Your task to perform on an android device: Go to notification settings Image 0: 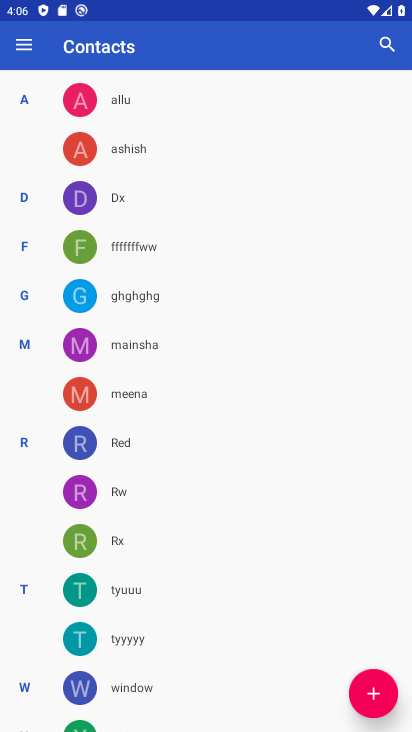
Step 0: press home button
Your task to perform on an android device: Go to notification settings Image 1: 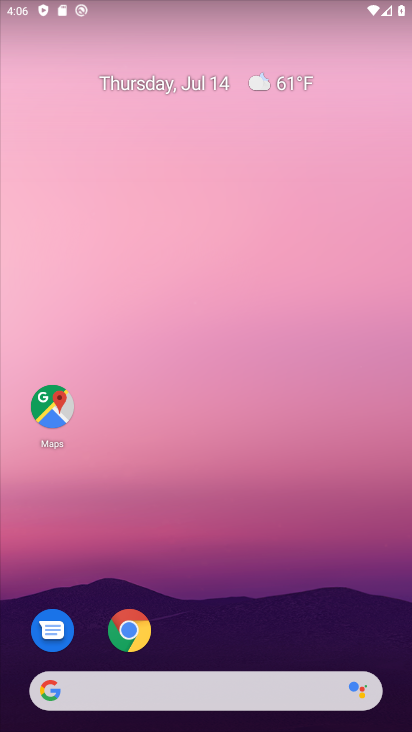
Step 1: drag from (245, 645) to (233, 178)
Your task to perform on an android device: Go to notification settings Image 2: 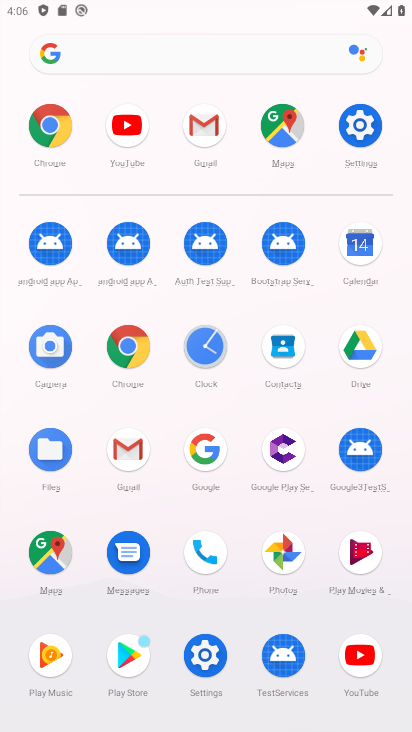
Step 2: click (359, 144)
Your task to perform on an android device: Go to notification settings Image 3: 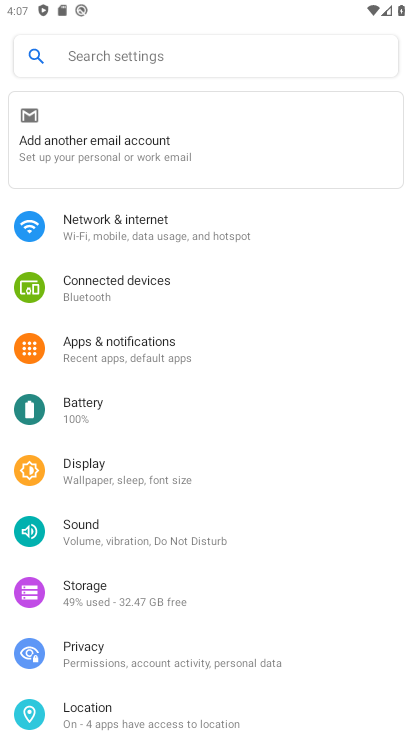
Step 3: click (184, 363)
Your task to perform on an android device: Go to notification settings Image 4: 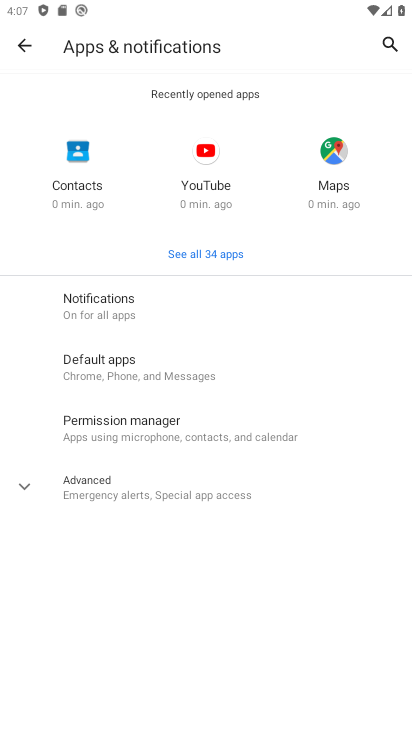
Step 4: click (157, 305)
Your task to perform on an android device: Go to notification settings Image 5: 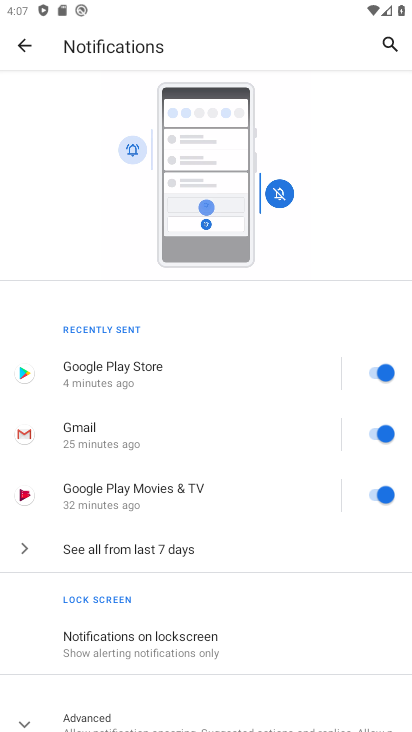
Step 5: task complete